Your task to perform on an android device: Open the Play Movies app and select the watchlist tab. Image 0: 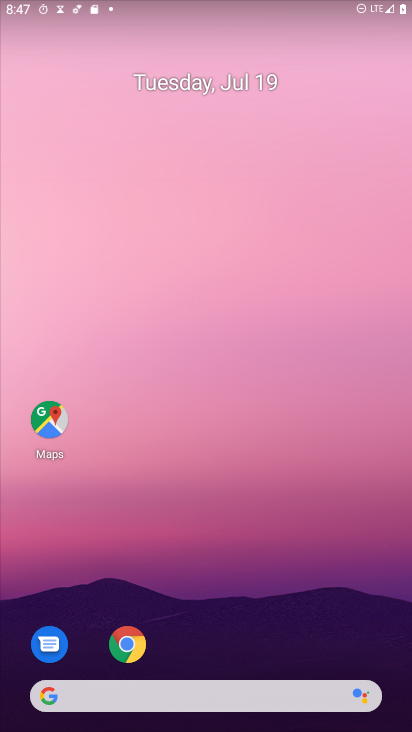
Step 0: drag from (5, 691) to (225, 115)
Your task to perform on an android device: Open the Play Movies app and select the watchlist tab. Image 1: 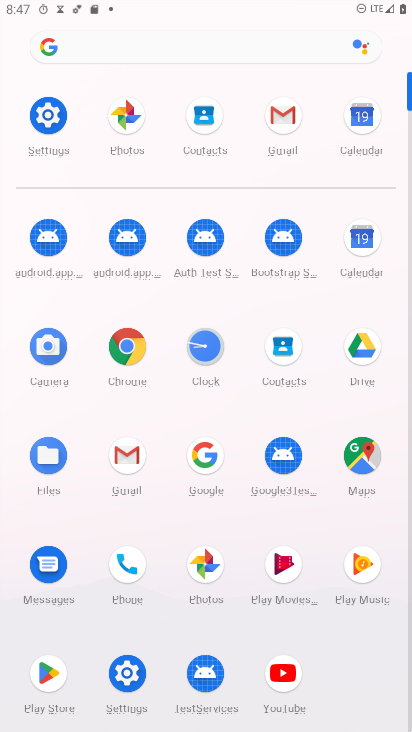
Step 1: click (269, 570)
Your task to perform on an android device: Open the Play Movies app and select the watchlist tab. Image 2: 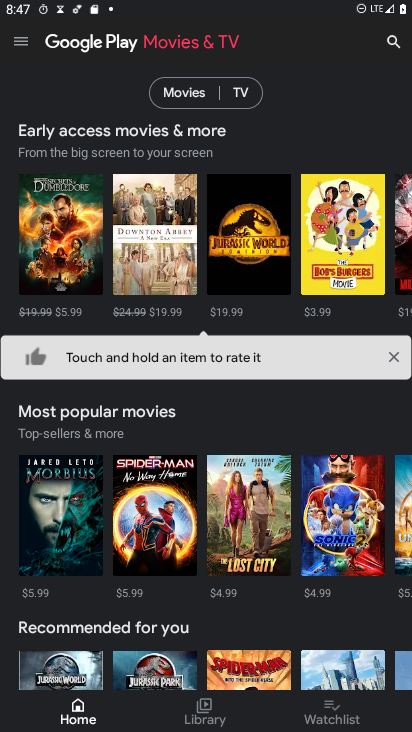
Step 2: click (336, 713)
Your task to perform on an android device: Open the Play Movies app and select the watchlist tab. Image 3: 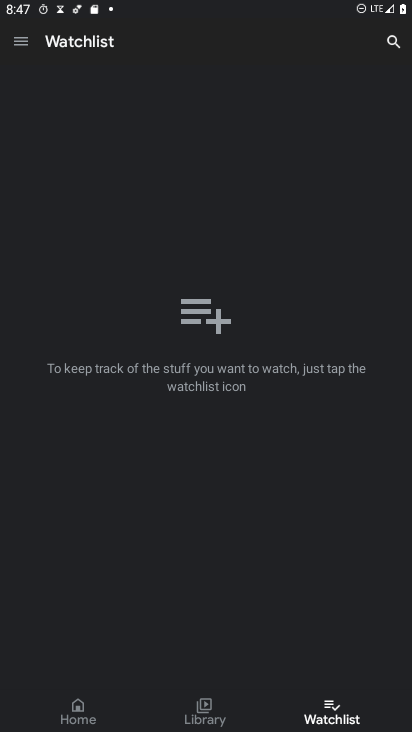
Step 3: task complete